Your task to perform on an android device: turn off wifi Image 0: 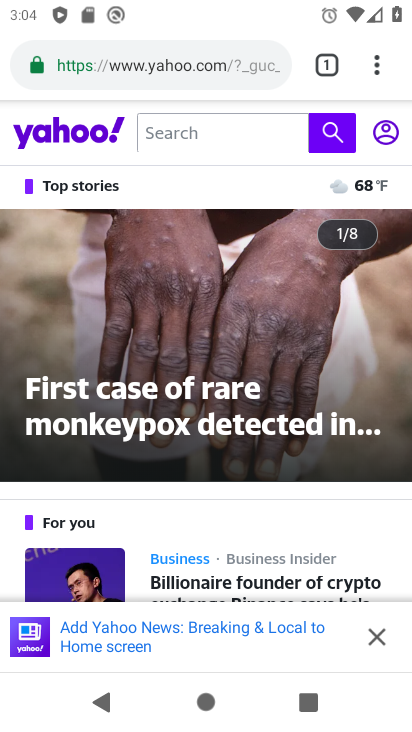
Step 0: drag from (71, 10) to (76, 452)
Your task to perform on an android device: turn off wifi Image 1: 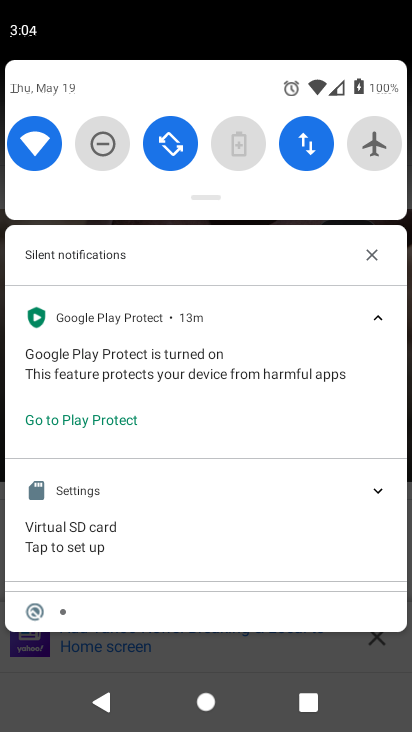
Step 1: click (39, 131)
Your task to perform on an android device: turn off wifi Image 2: 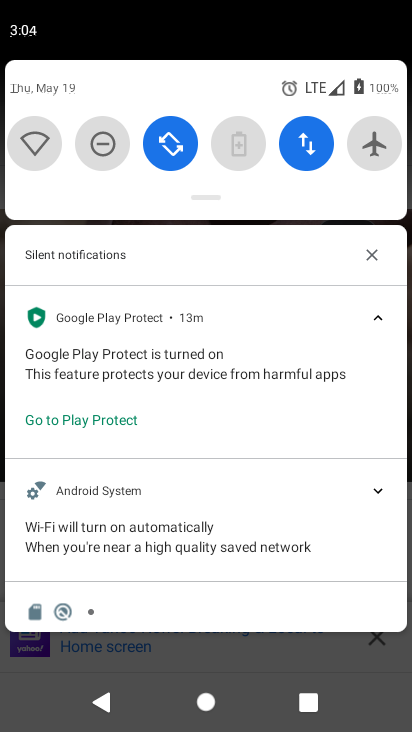
Step 2: task complete